Your task to perform on an android device: Go to wifi settings Image 0: 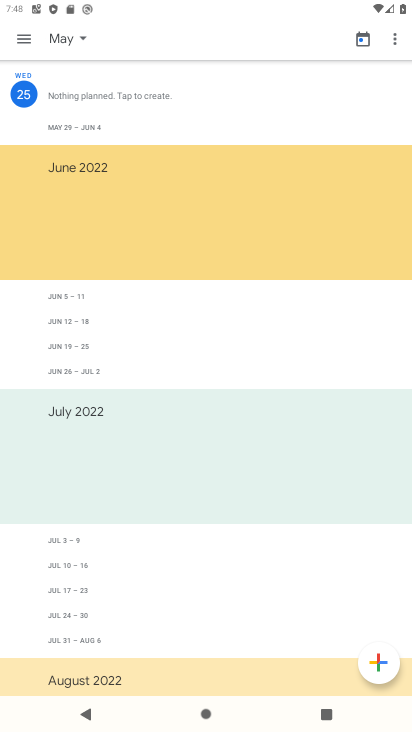
Step 0: press back button
Your task to perform on an android device: Go to wifi settings Image 1: 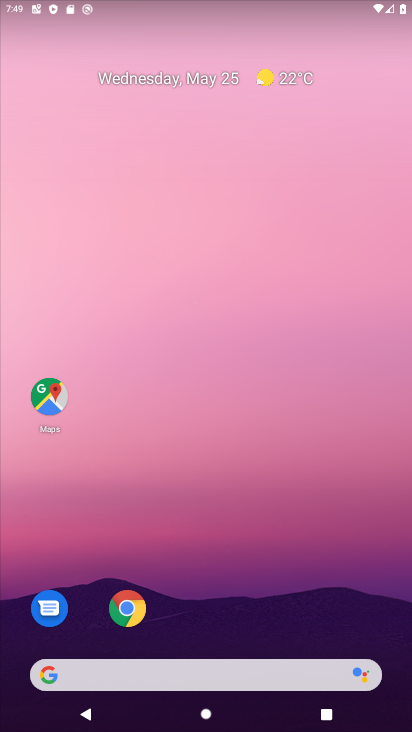
Step 1: drag from (252, 556) to (248, 112)
Your task to perform on an android device: Go to wifi settings Image 2: 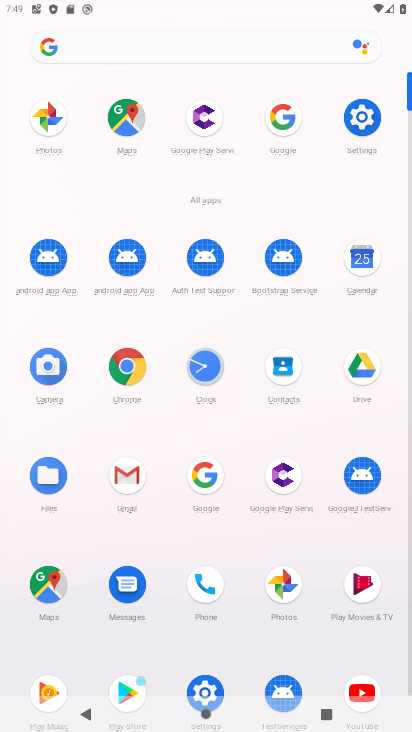
Step 2: click (361, 118)
Your task to perform on an android device: Go to wifi settings Image 3: 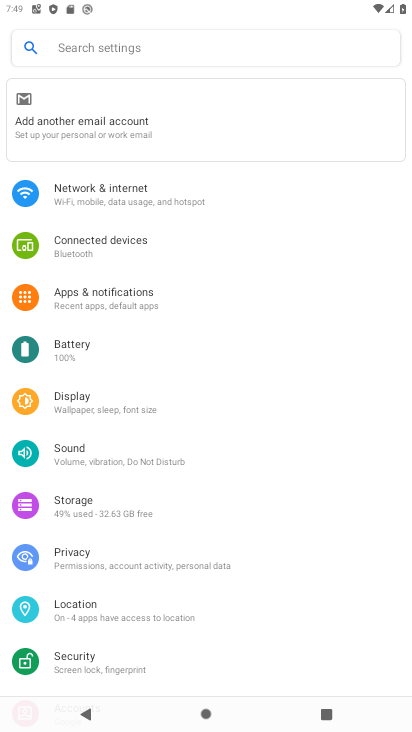
Step 3: click (135, 191)
Your task to perform on an android device: Go to wifi settings Image 4: 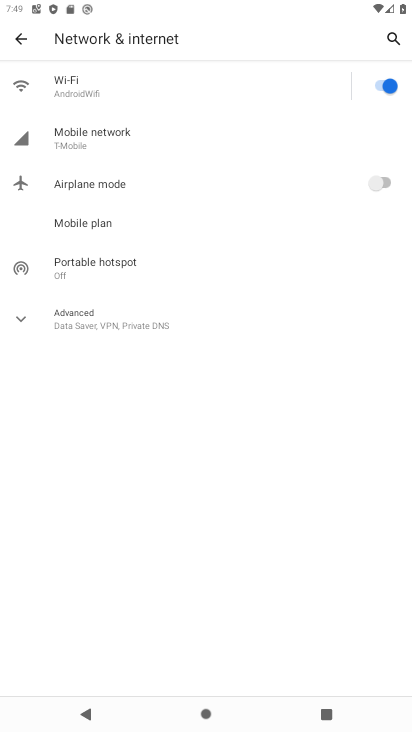
Step 4: click (78, 88)
Your task to perform on an android device: Go to wifi settings Image 5: 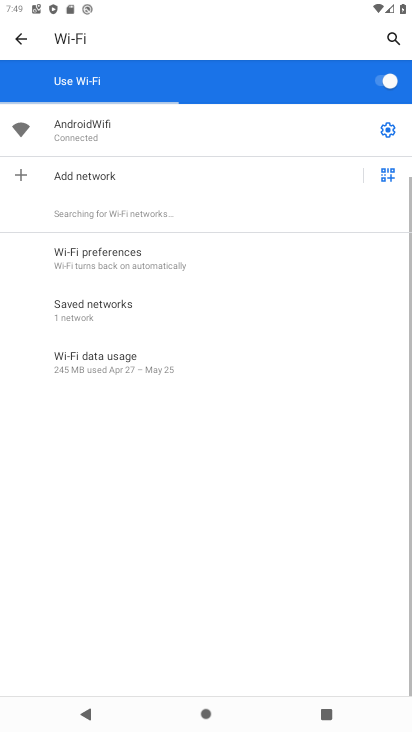
Step 5: click (388, 130)
Your task to perform on an android device: Go to wifi settings Image 6: 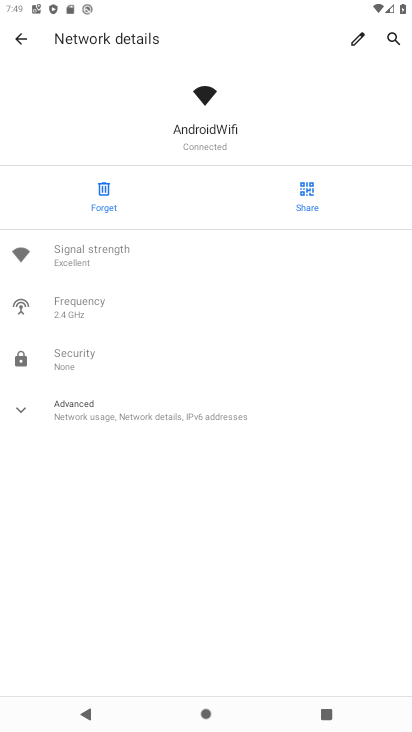
Step 6: task complete